Your task to perform on an android device: change the upload size in google photos Image 0: 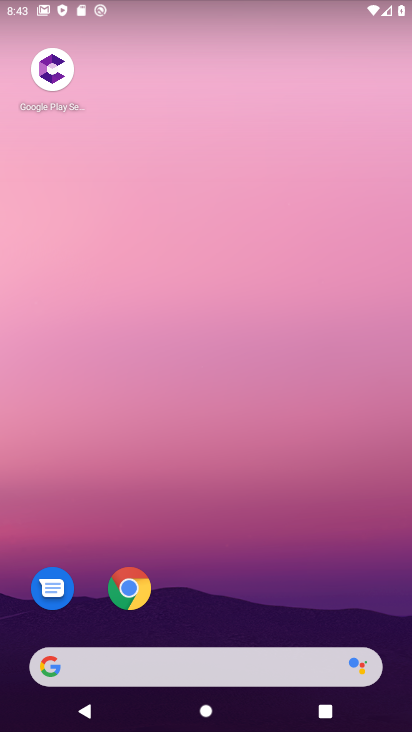
Step 0: drag from (403, 694) to (333, 139)
Your task to perform on an android device: change the upload size in google photos Image 1: 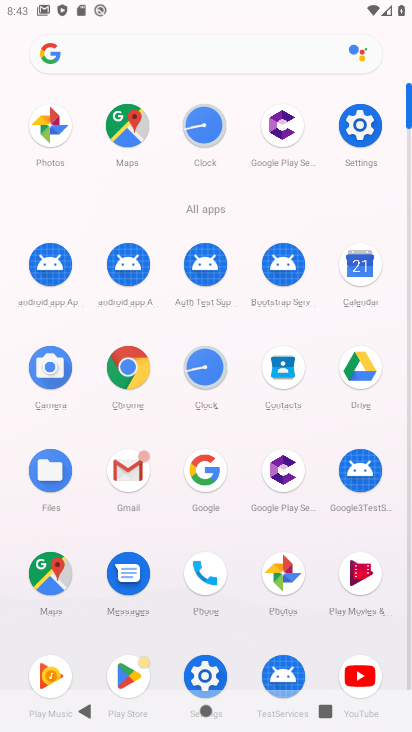
Step 1: click (281, 572)
Your task to perform on an android device: change the upload size in google photos Image 2: 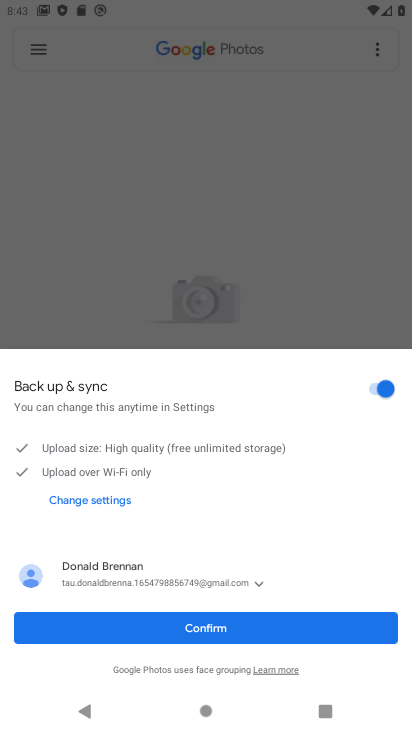
Step 2: click (302, 630)
Your task to perform on an android device: change the upload size in google photos Image 3: 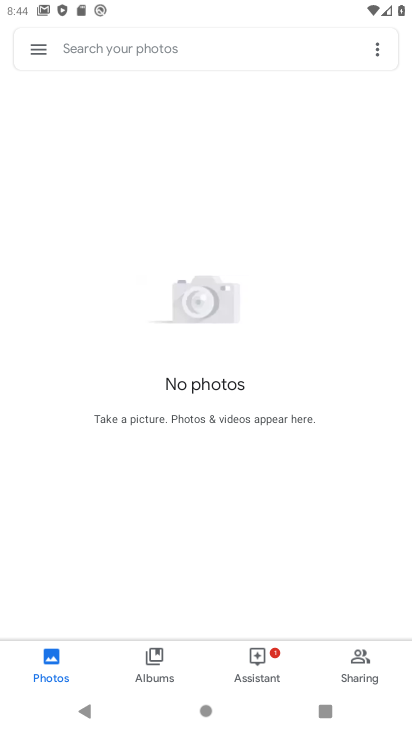
Step 3: click (44, 54)
Your task to perform on an android device: change the upload size in google photos Image 4: 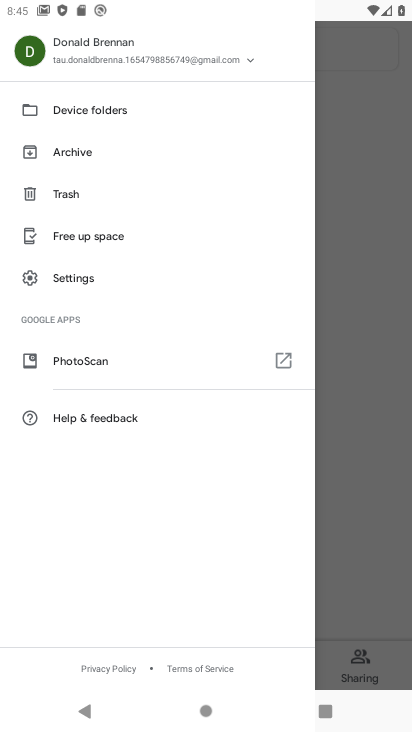
Step 4: click (54, 263)
Your task to perform on an android device: change the upload size in google photos Image 5: 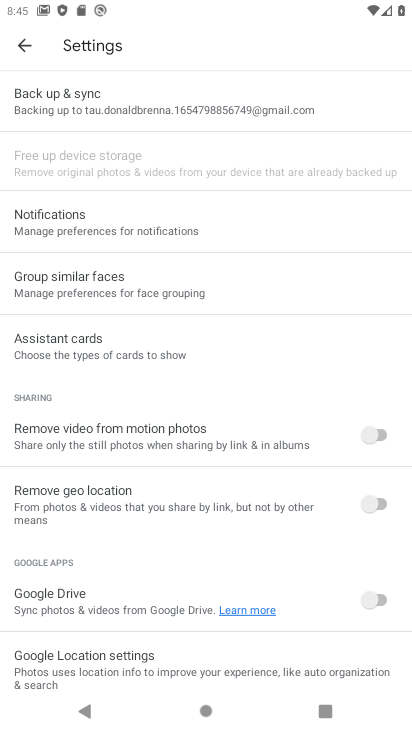
Step 5: click (42, 89)
Your task to perform on an android device: change the upload size in google photos Image 6: 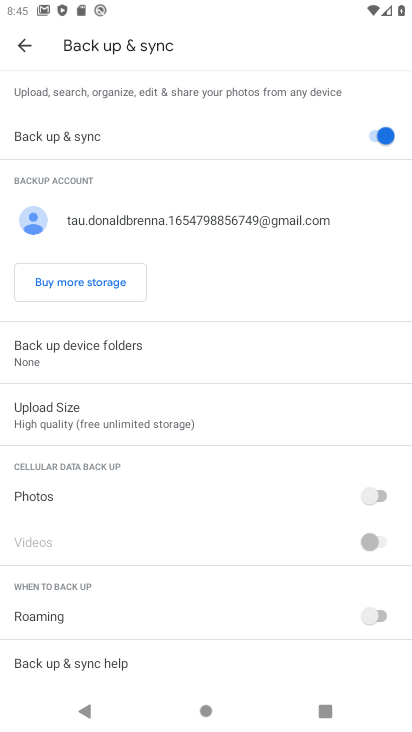
Step 6: click (32, 410)
Your task to perform on an android device: change the upload size in google photos Image 7: 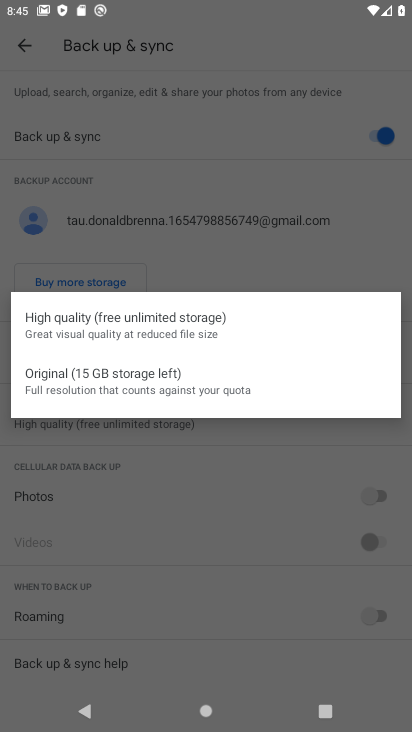
Step 7: click (34, 377)
Your task to perform on an android device: change the upload size in google photos Image 8: 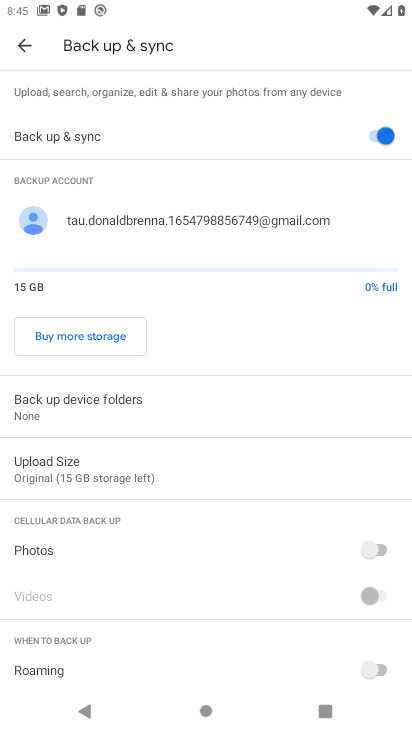
Step 8: task complete